Your task to perform on an android device: Open battery settings Image 0: 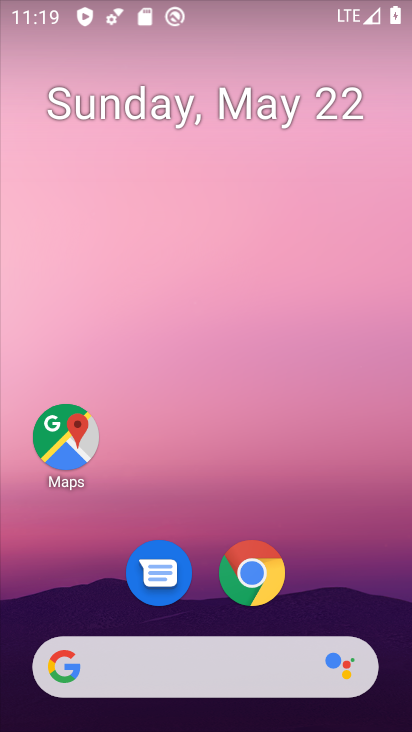
Step 0: drag from (209, 577) to (255, 44)
Your task to perform on an android device: Open battery settings Image 1: 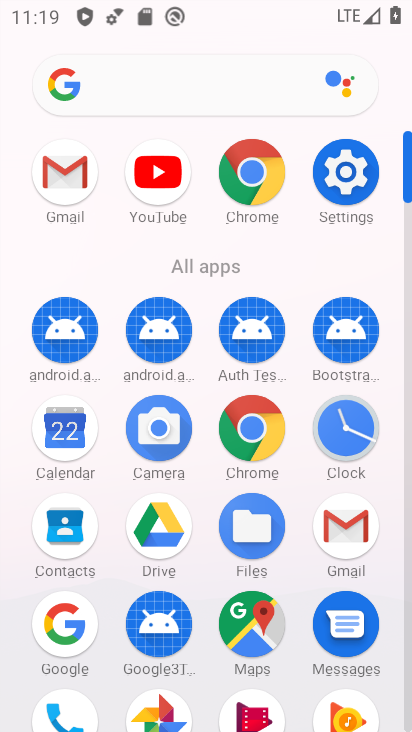
Step 1: click (342, 178)
Your task to perform on an android device: Open battery settings Image 2: 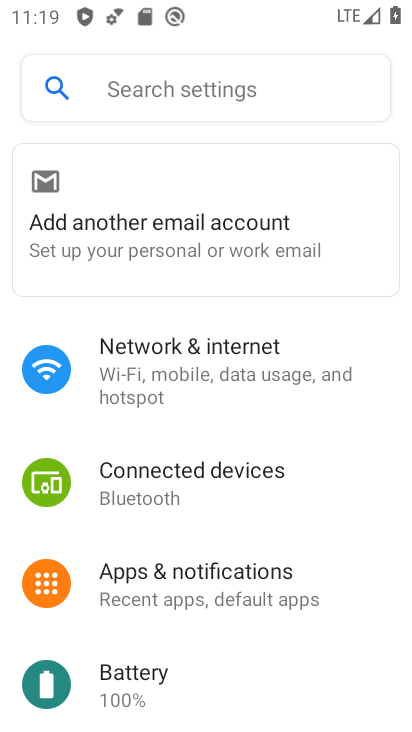
Step 2: click (165, 673)
Your task to perform on an android device: Open battery settings Image 3: 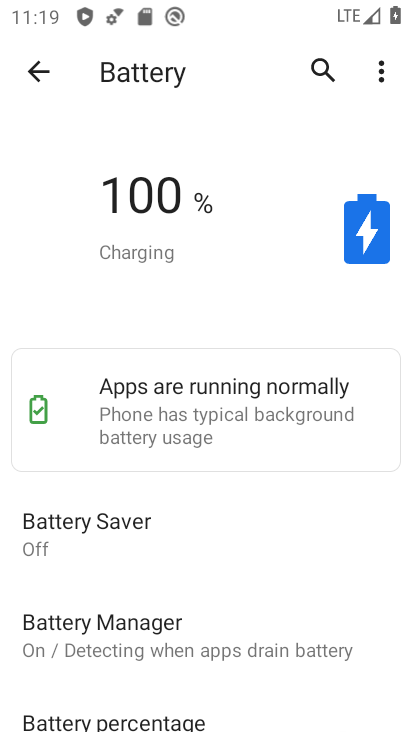
Step 3: task complete